Your task to perform on an android device: toggle location history Image 0: 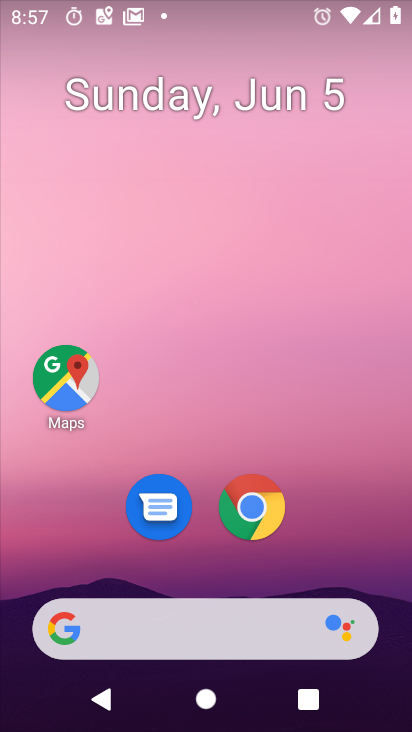
Step 0: drag from (241, 632) to (287, 187)
Your task to perform on an android device: toggle location history Image 1: 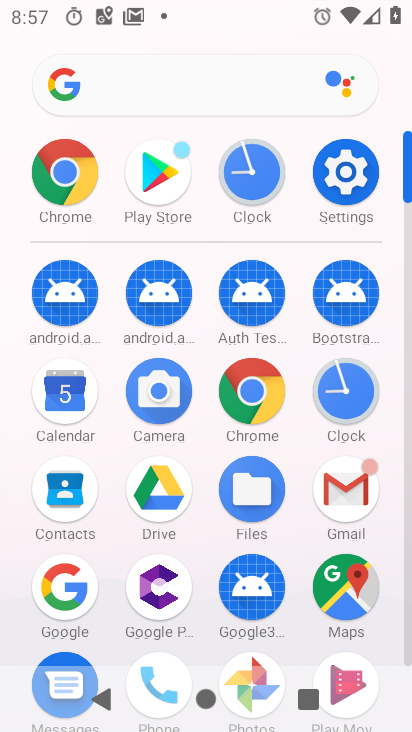
Step 1: click (339, 188)
Your task to perform on an android device: toggle location history Image 2: 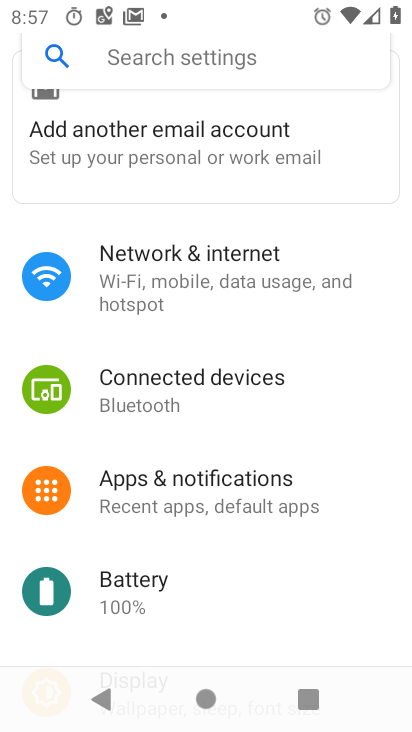
Step 2: click (155, 54)
Your task to perform on an android device: toggle location history Image 3: 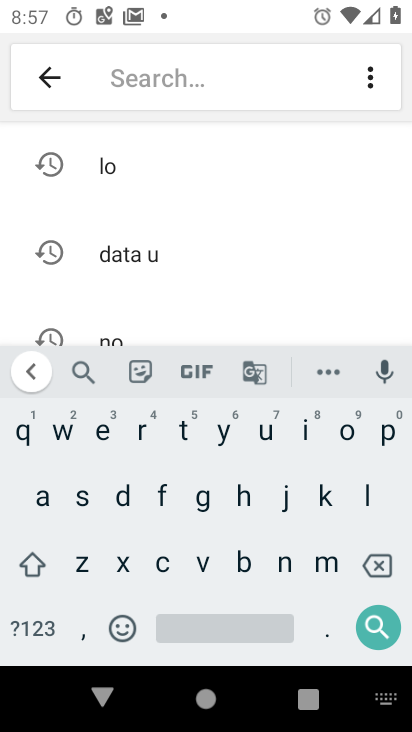
Step 3: click (109, 185)
Your task to perform on an android device: toggle location history Image 4: 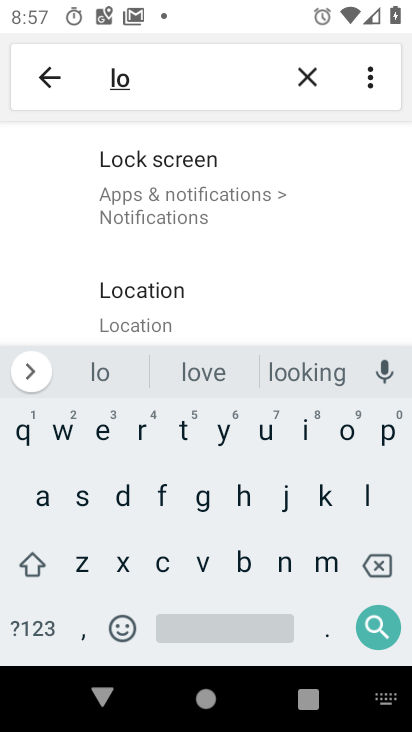
Step 4: click (176, 305)
Your task to perform on an android device: toggle location history Image 5: 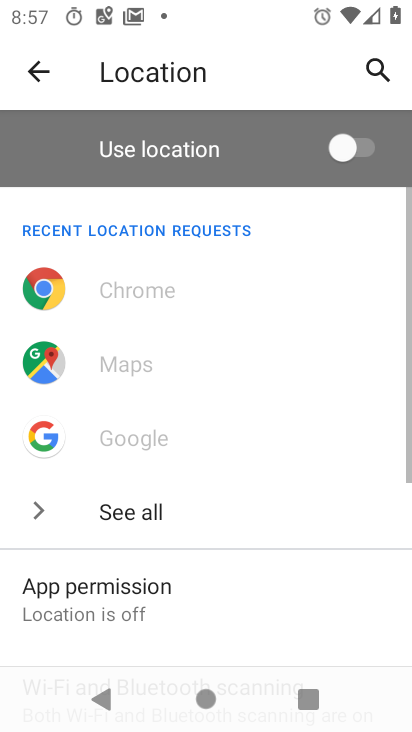
Step 5: drag from (215, 534) to (228, 263)
Your task to perform on an android device: toggle location history Image 6: 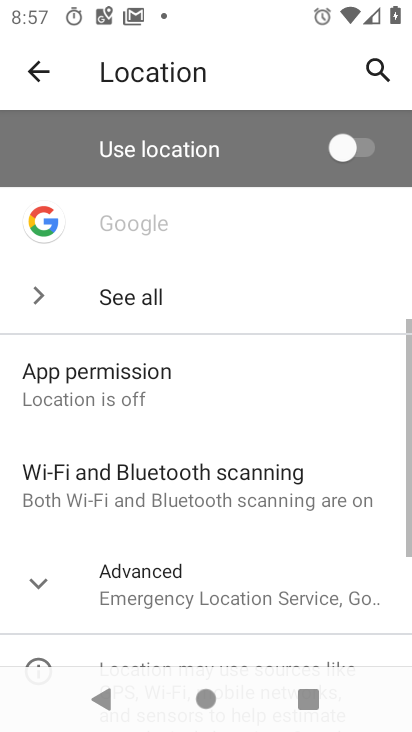
Step 6: drag from (208, 509) to (208, 260)
Your task to perform on an android device: toggle location history Image 7: 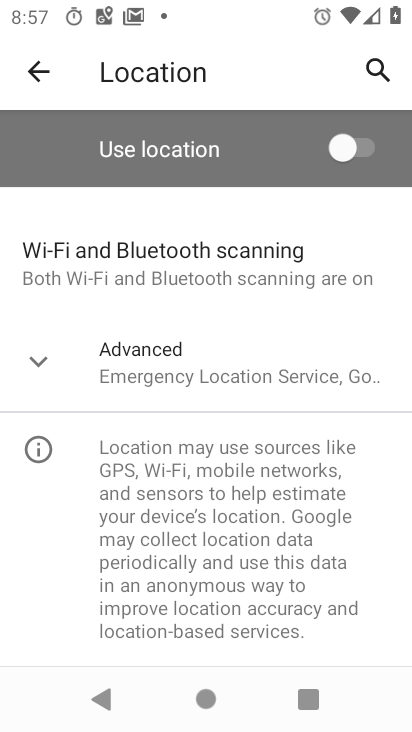
Step 7: click (112, 355)
Your task to perform on an android device: toggle location history Image 8: 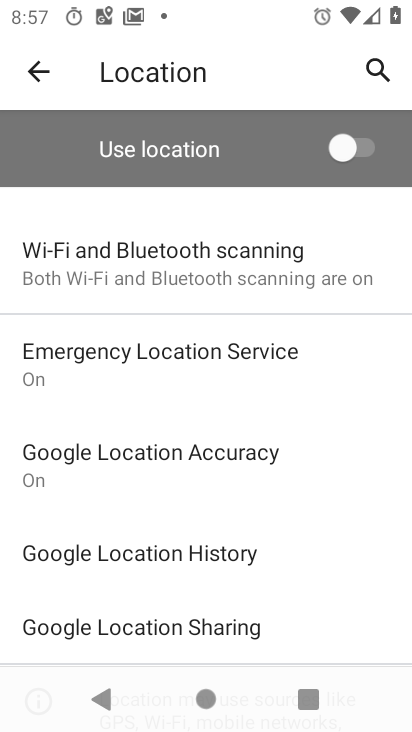
Step 8: click (175, 549)
Your task to perform on an android device: toggle location history Image 9: 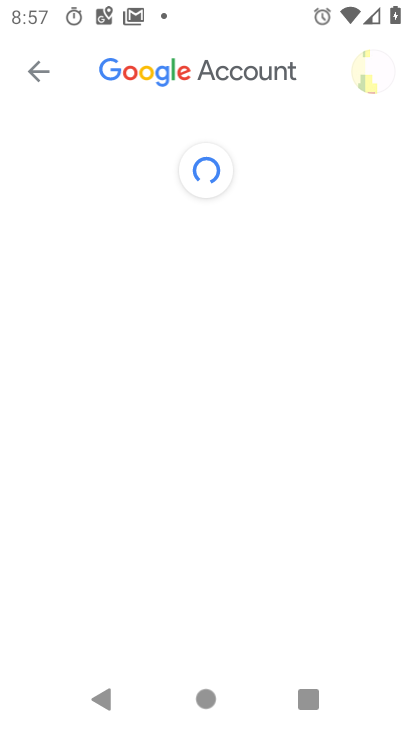
Step 9: task complete